Your task to perform on an android device: Empty the shopping cart on bestbuy. Search for "razer blade" on bestbuy, select the first entry, and add it to the cart. Image 0: 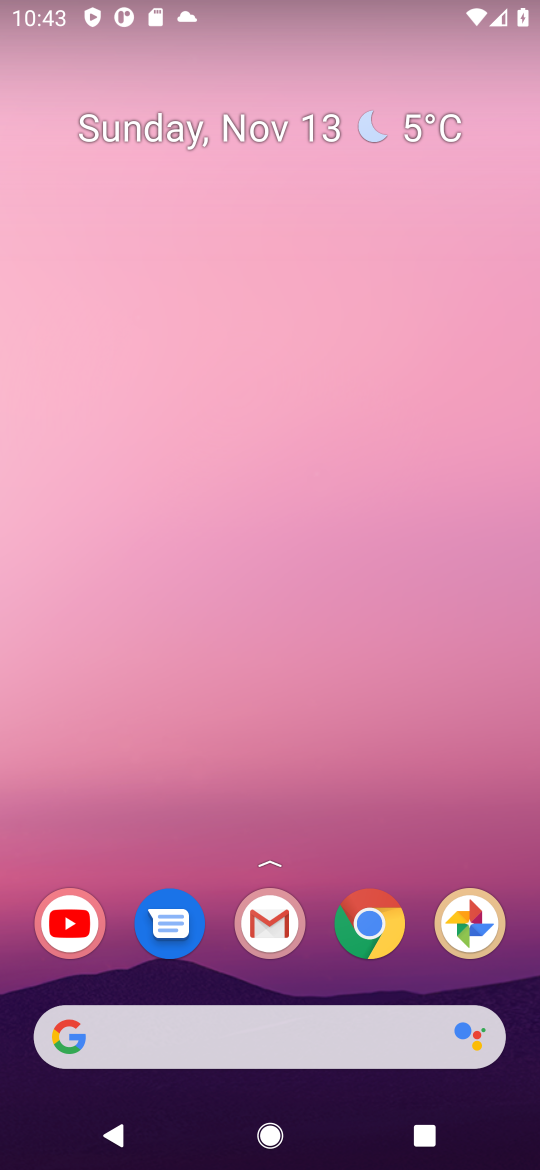
Step 0: click (375, 941)
Your task to perform on an android device: Empty the shopping cart on bestbuy. Search for "razer blade" on bestbuy, select the first entry, and add it to the cart. Image 1: 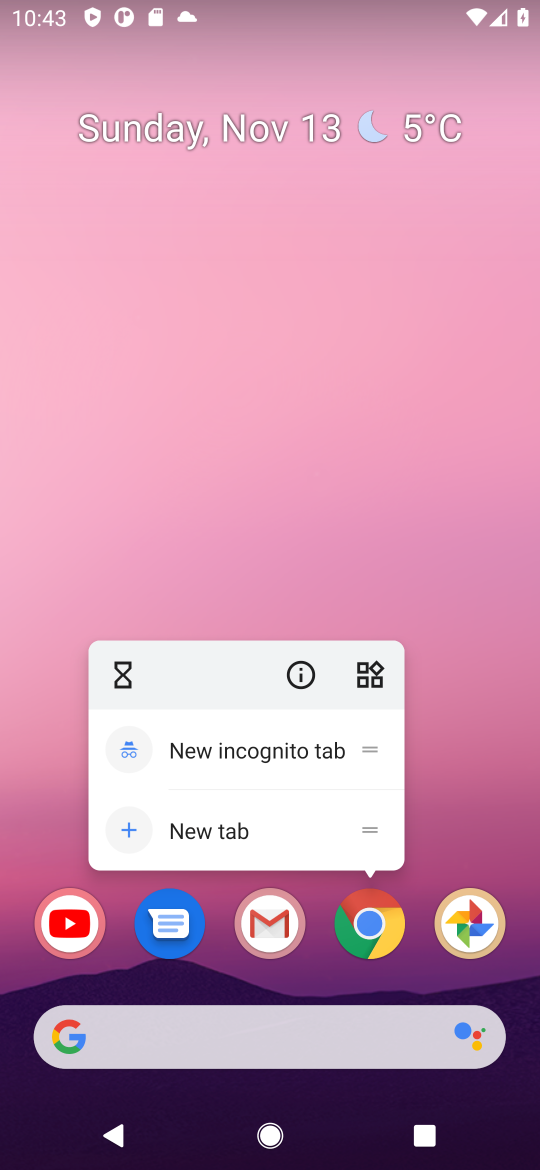
Step 1: click (375, 941)
Your task to perform on an android device: Empty the shopping cart on bestbuy. Search for "razer blade" on bestbuy, select the first entry, and add it to the cart. Image 2: 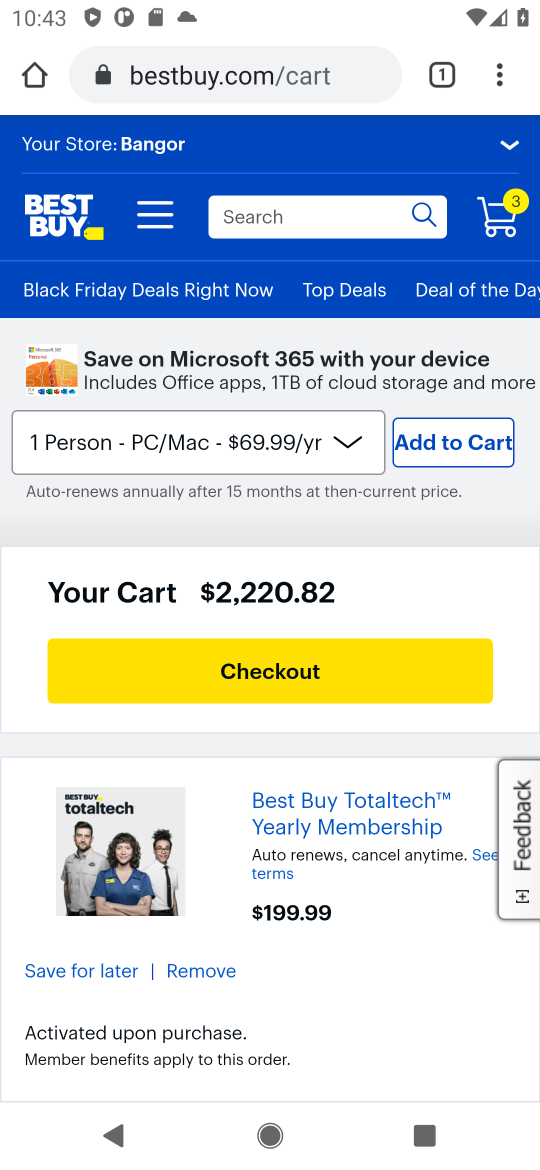
Step 2: click (495, 211)
Your task to perform on an android device: Empty the shopping cart on bestbuy. Search for "razer blade" on bestbuy, select the first entry, and add it to the cart. Image 3: 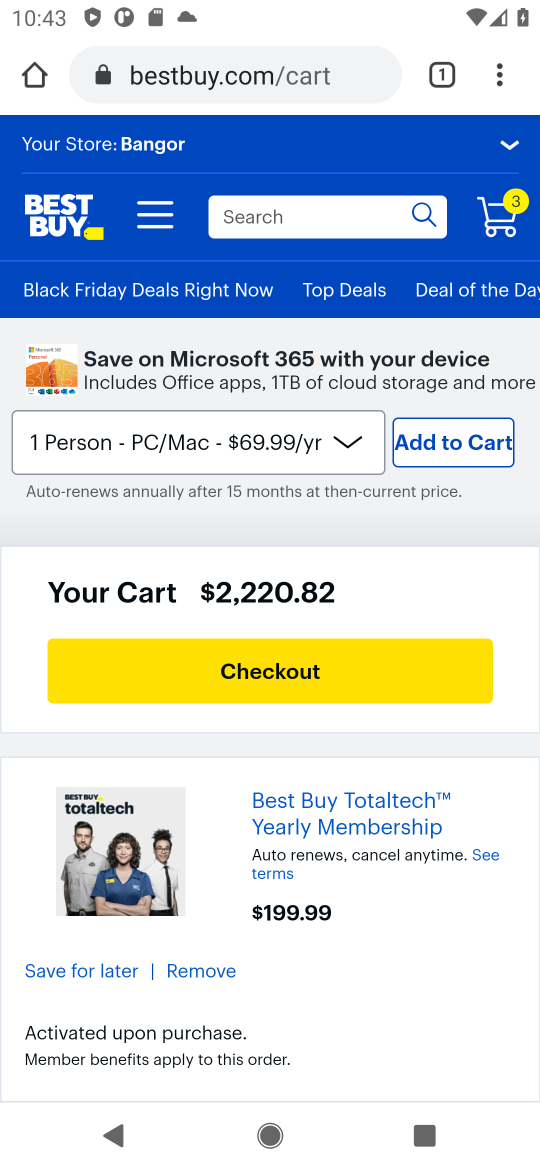
Step 3: drag from (415, 928) to (470, 488)
Your task to perform on an android device: Empty the shopping cart on bestbuy. Search for "razer blade" on bestbuy, select the first entry, and add it to the cart. Image 4: 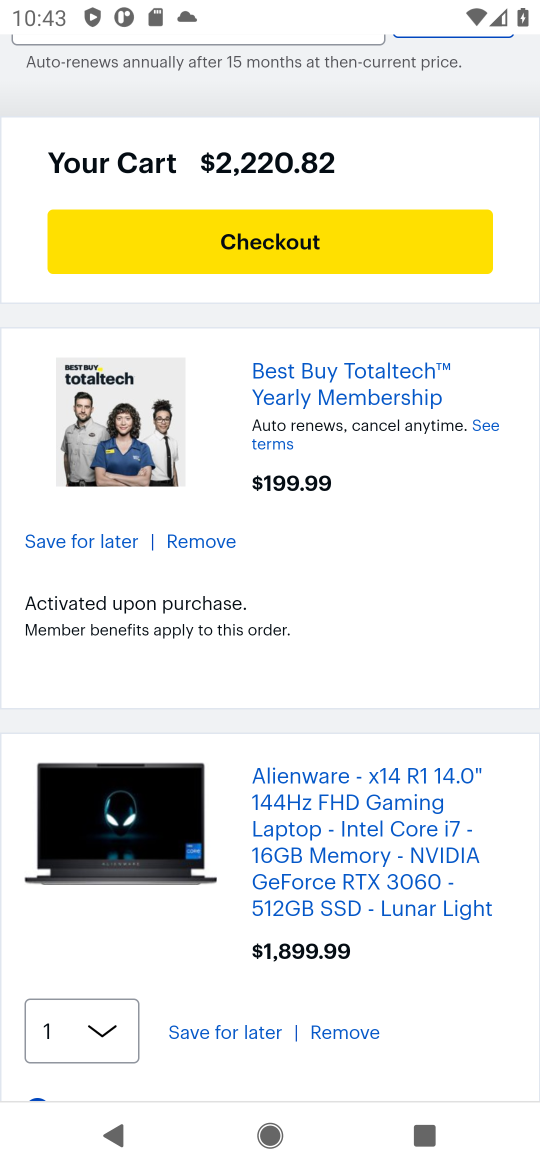
Step 4: click (205, 546)
Your task to perform on an android device: Empty the shopping cart on bestbuy. Search for "razer blade" on bestbuy, select the first entry, and add it to the cart. Image 5: 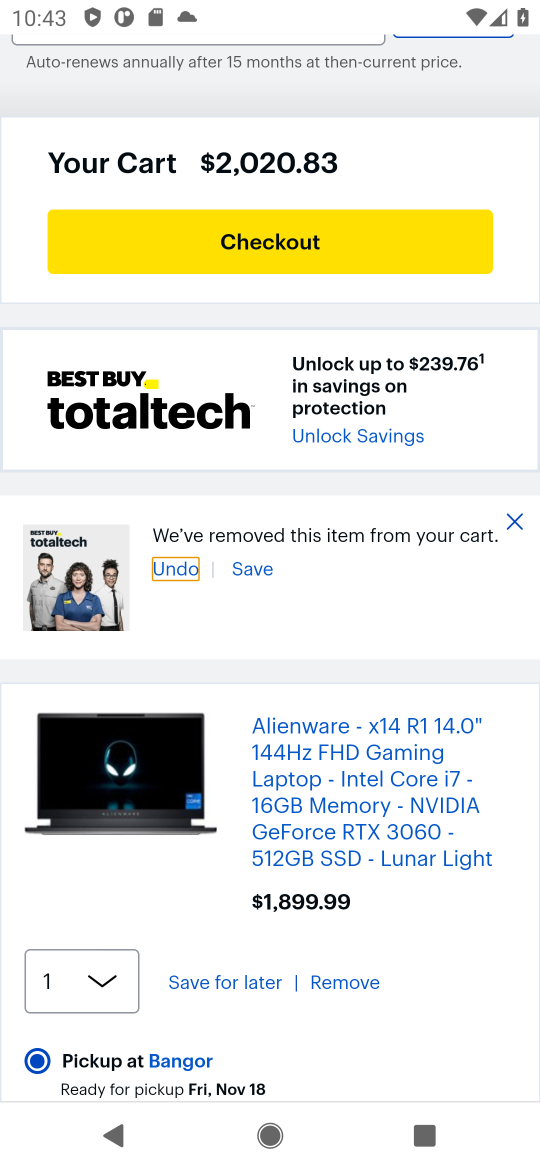
Step 5: click (342, 983)
Your task to perform on an android device: Empty the shopping cart on bestbuy. Search for "razer blade" on bestbuy, select the first entry, and add it to the cart. Image 6: 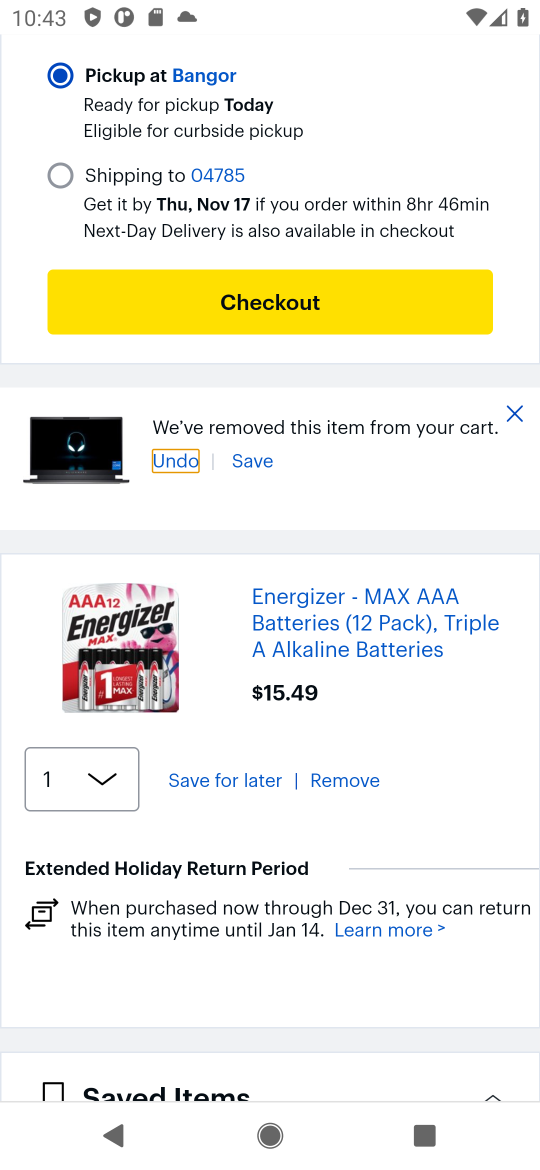
Step 6: click (351, 783)
Your task to perform on an android device: Empty the shopping cart on bestbuy. Search for "razer blade" on bestbuy, select the first entry, and add it to the cart. Image 7: 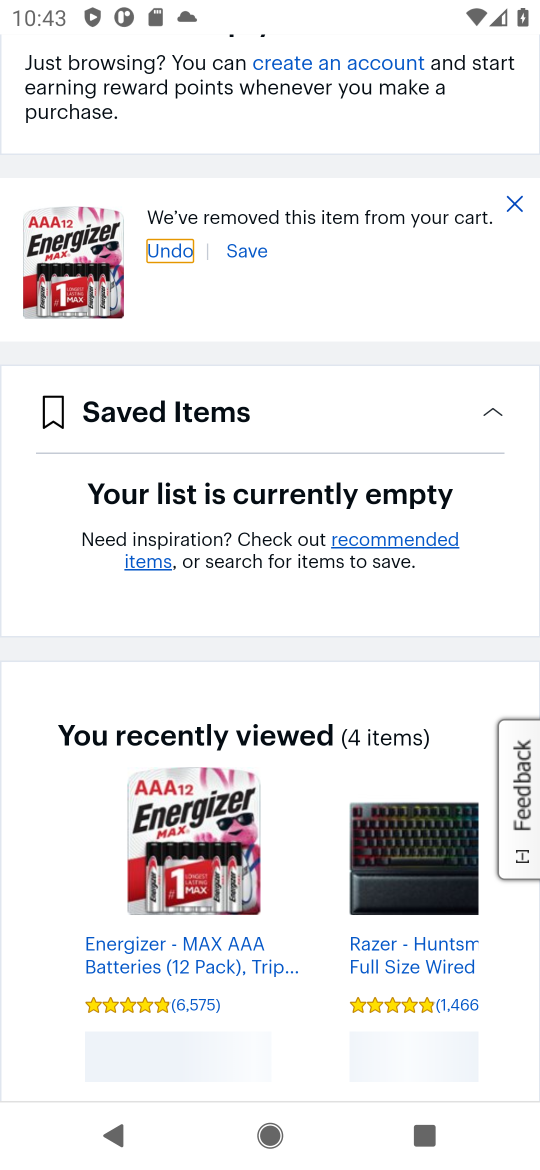
Step 7: drag from (328, 396) to (290, 1128)
Your task to perform on an android device: Empty the shopping cart on bestbuy. Search for "razer blade" on bestbuy, select the first entry, and add it to the cart. Image 8: 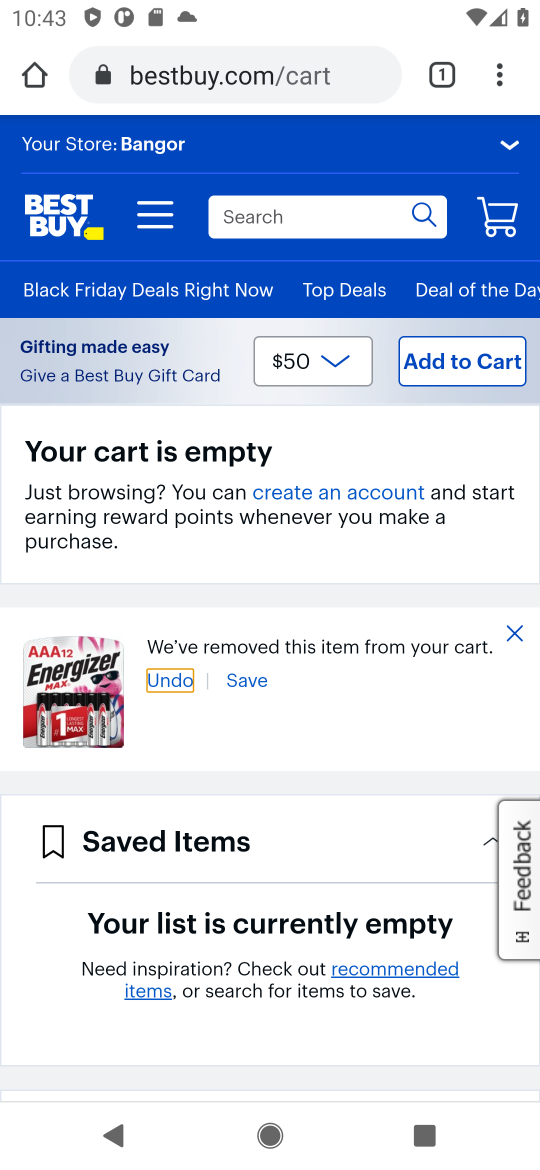
Step 8: click (254, 216)
Your task to perform on an android device: Empty the shopping cart on bestbuy. Search for "razer blade" on bestbuy, select the first entry, and add it to the cart. Image 9: 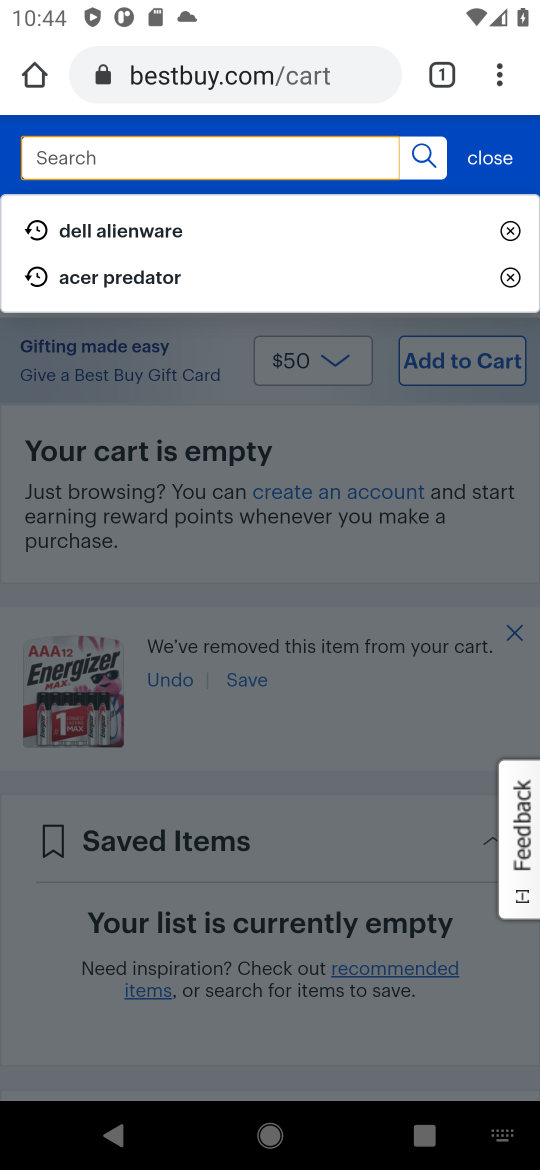
Step 9: type "razer blade"
Your task to perform on an android device: Empty the shopping cart on bestbuy. Search for "razer blade" on bestbuy, select the first entry, and add it to the cart. Image 10: 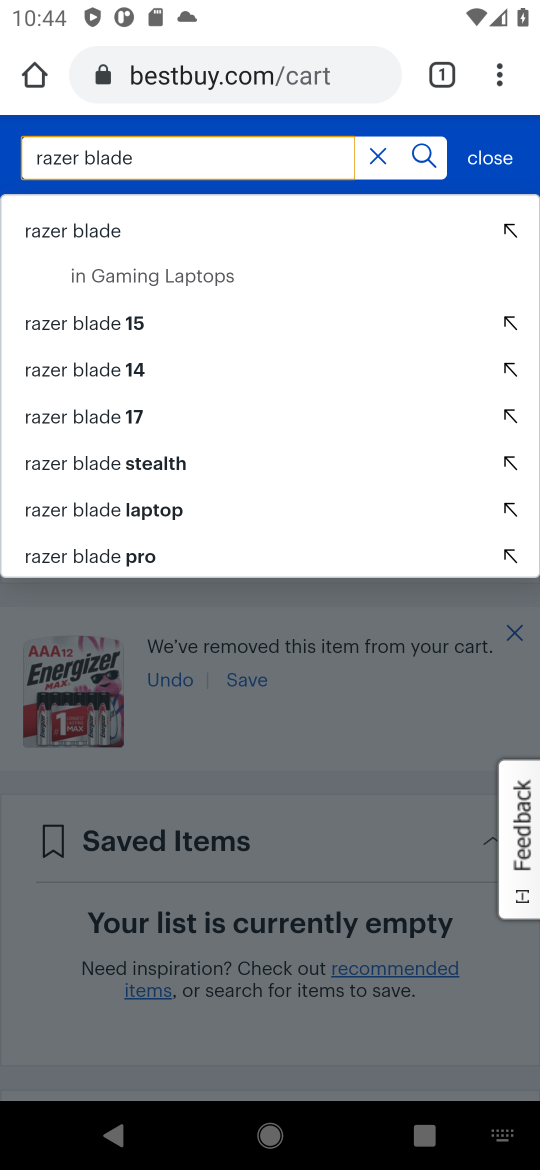
Step 10: press enter
Your task to perform on an android device: Empty the shopping cart on bestbuy. Search for "razer blade" on bestbuy, select the first entry, and add it to the cart. Image 11: 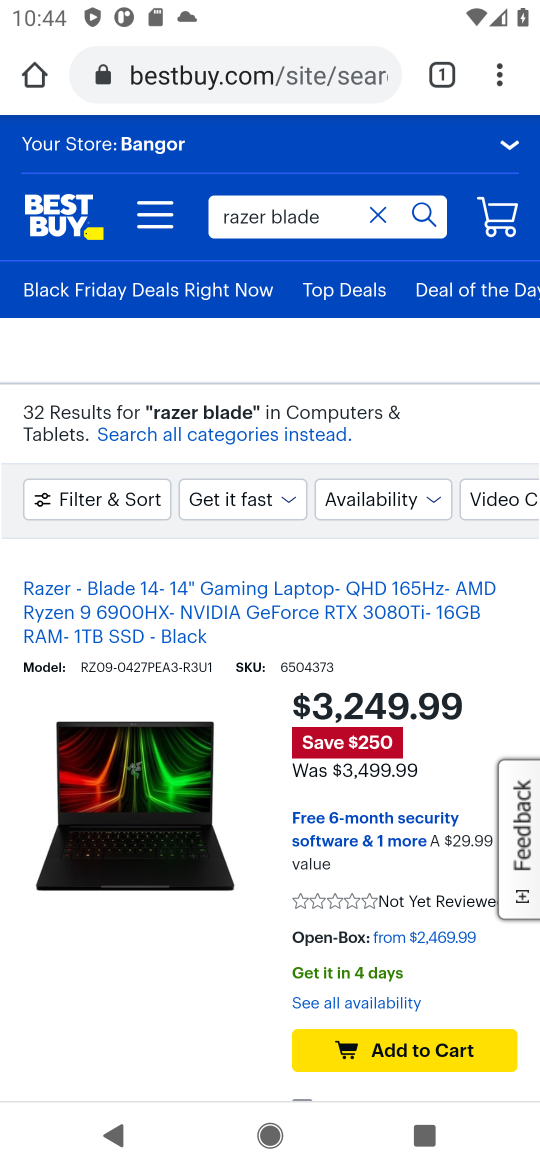
Step 11: click (404, 1048)
Your task to perform on an android device: Empty the shopping cart on bestbuy. Search for "razer blade" on bestbuy, select the first entry, and add it to the cart. Image 12: 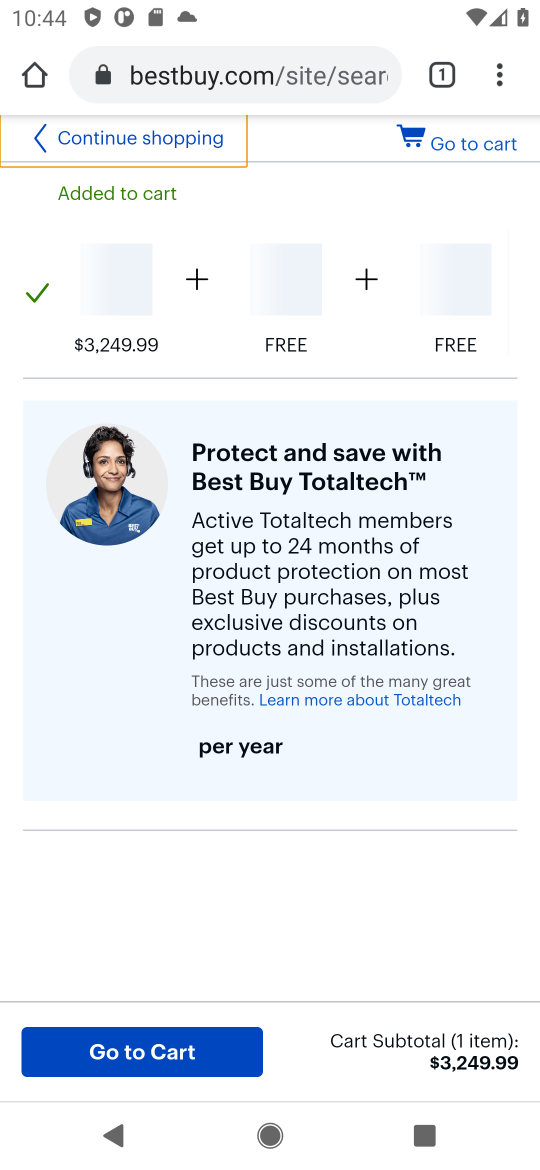
Step 12: click (196, 1053)
Your task to perform on an android device: Empty the shopping cart on bestbuy. Search for "razer blade" on bestbuy, select the first entry, and add it to the cart. Image 13: 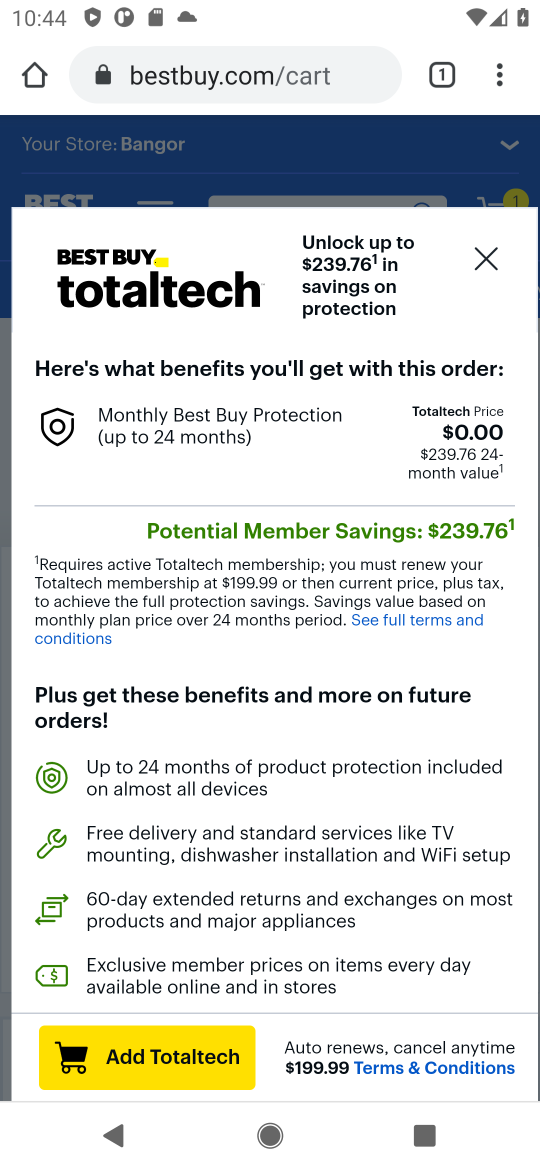
Step 13: click (187, 1055)
Your task to perform on an android device: Empty the shopping cart on bestbuy. Search for "razer blade" on bestbuy, select the first entry, and add it to the cart. Image 14: 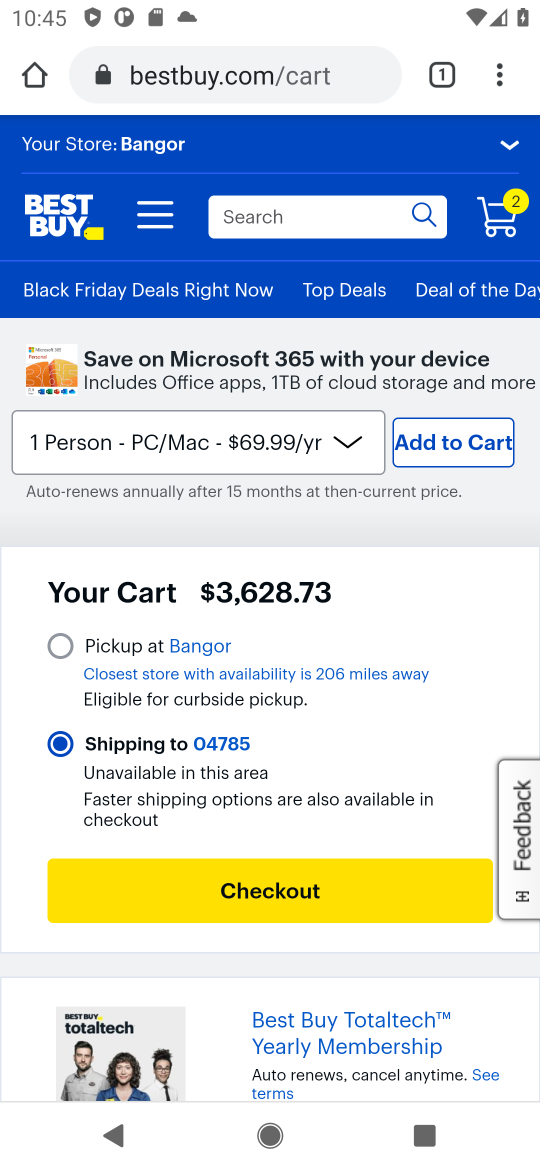
Step 14: task complete